Your task to perform on an android device: What's the weather? Image 0: 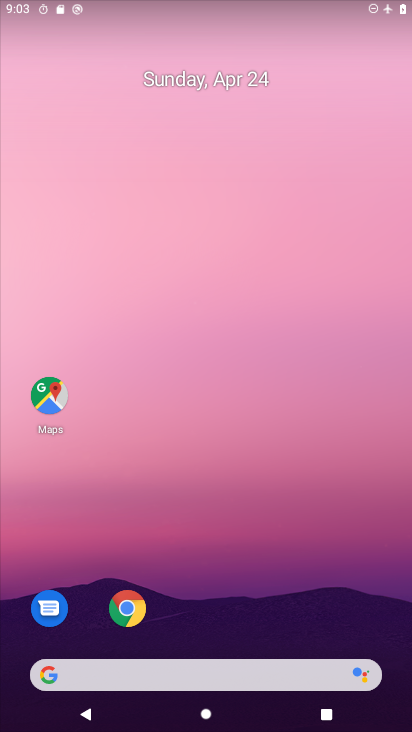
Step 0: click (192, 678)
Your task to perform on an android device: What's the weather? Image 1: 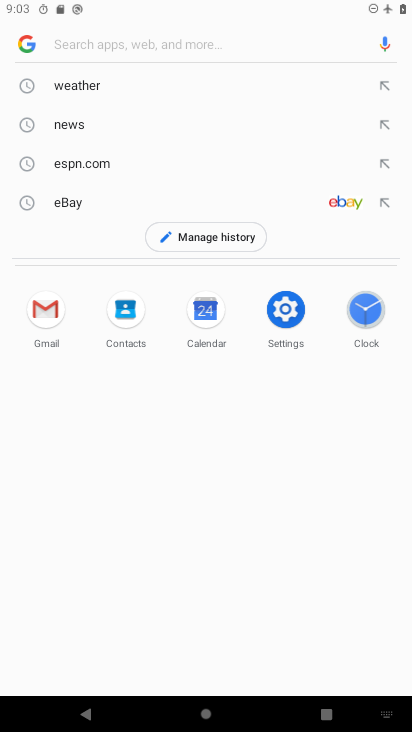
Step 1: click (86, 80)
Your task to perform on an android device: What's the weather? Image 2: 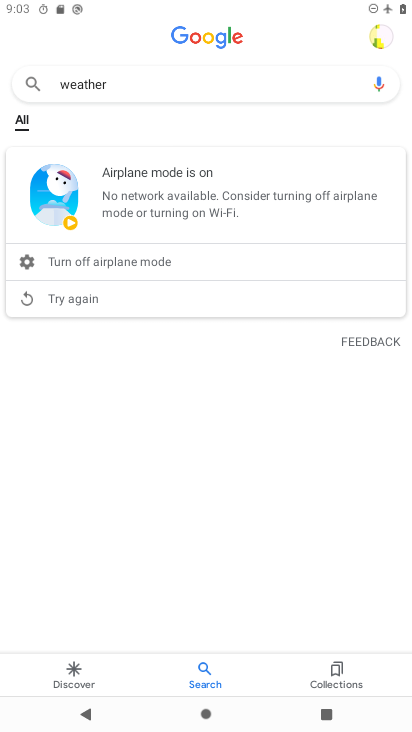
Step 2: task complete